Your task to perform on an android device: check data usage Image 0: 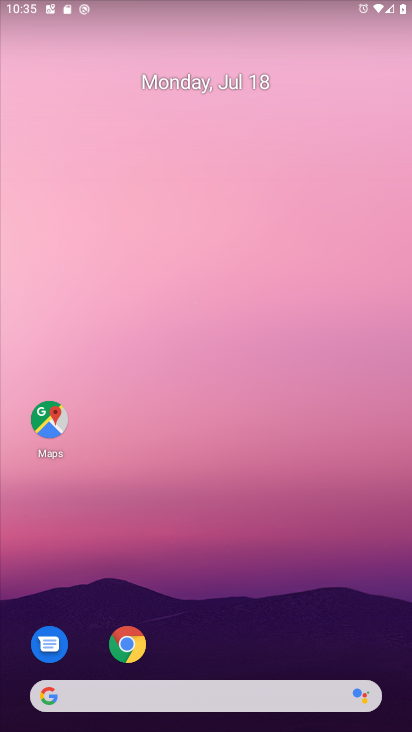
Step 0: drag from (196, 656) to (229, 158)
Your task to perform on an android device: check data usage Image 1: 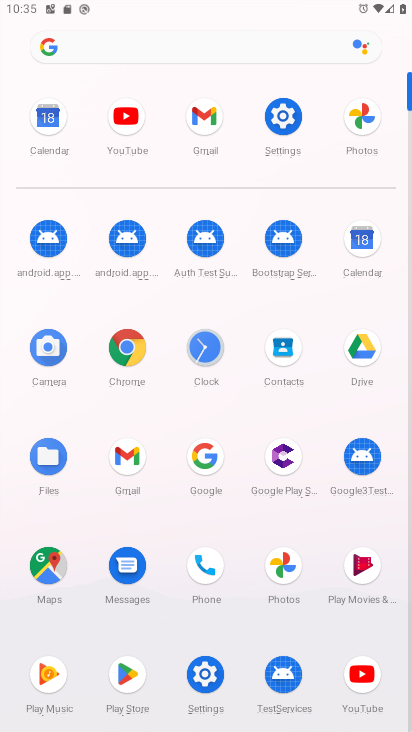
Step 1: click (289, 130)
Your task to perform on an android device: check data usage Image 2: 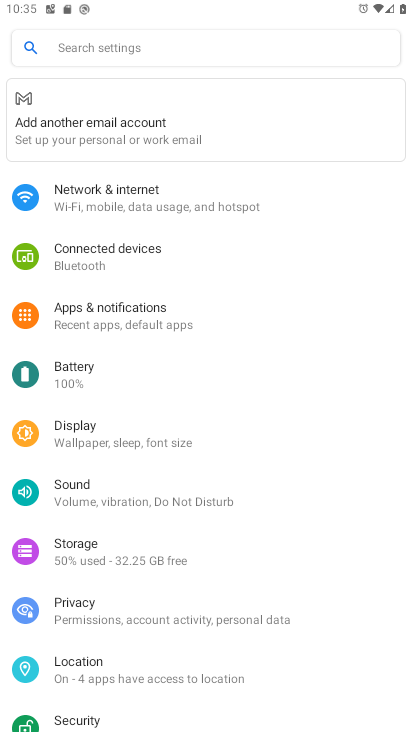
Step 2: click (120, 184)
Your task to perform on an android device: check data usage Image 3: 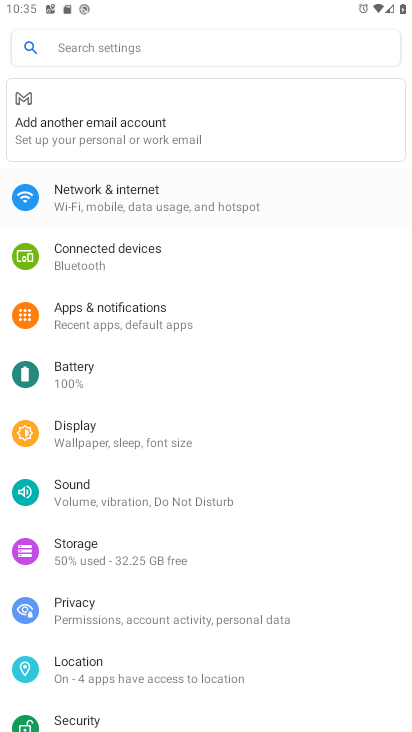
Step 3: task complete